Your task to perform on an android device: Turn off the flashlight Image 0: 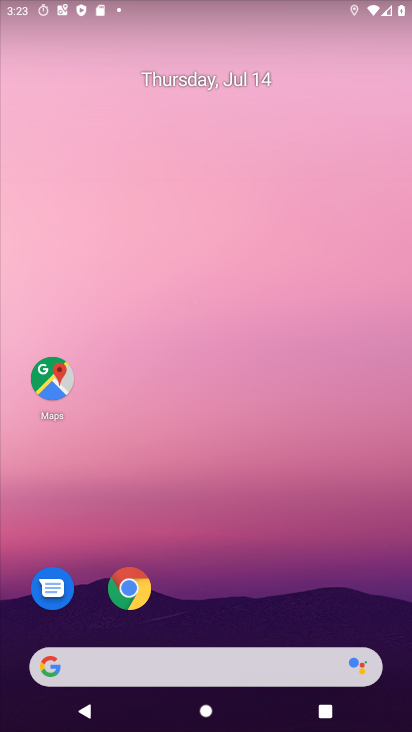
Step 0: drag from (212, 663) to (268, 184)
Your task to perform on an android device: Turn off the flashlight Image 1: 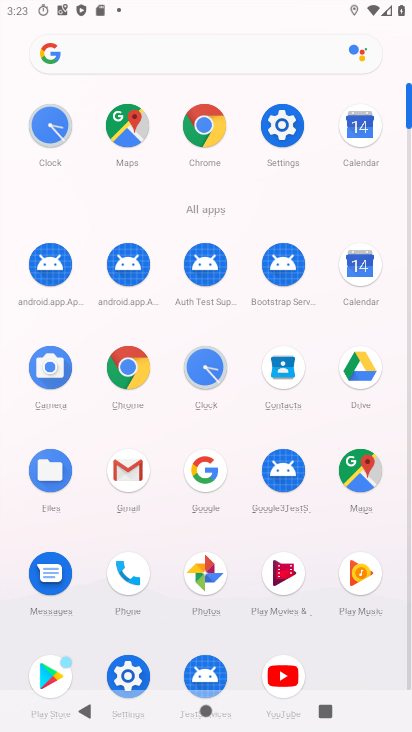
Step 1: click (281, 125)
Your task to perform on an android device: Turn off the flashlight Image 2: 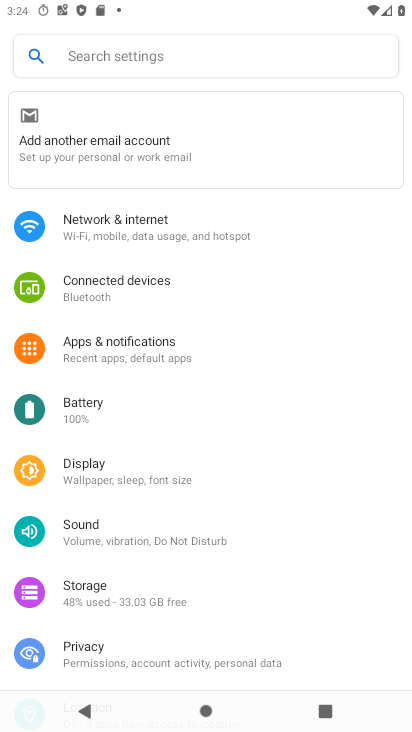
Step 2: drag from (132, 547) to (216, 443)
Your task to perform on an android device: Turn off the flashlight Image 3: 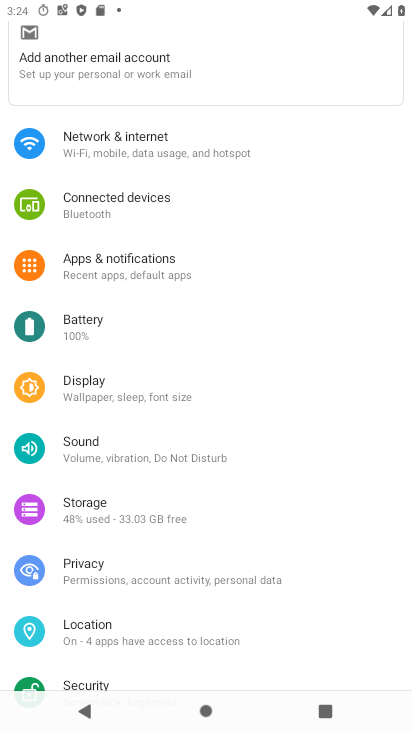
Step 3: click (156, 406)
Your task to perform on an android device: Turn off the flashlight Image 4: 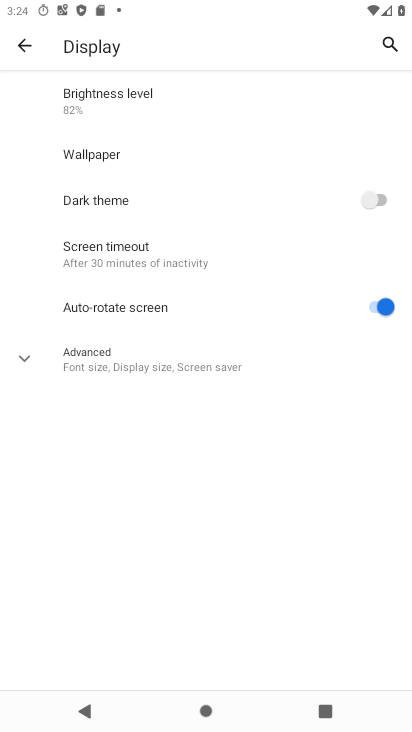
Step 4: click (143, 379)
Your task to perform on an android device: Turn off the flashlight Image 5: 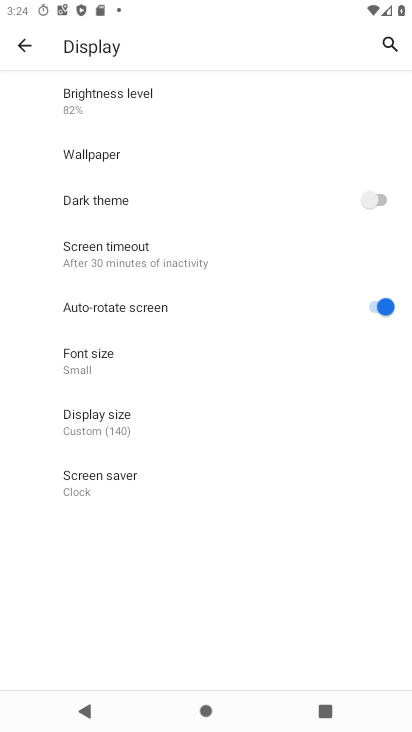
Step 5: click (96, 483)
Your task to perform on an android device: Turn off the flashlight Image 6: 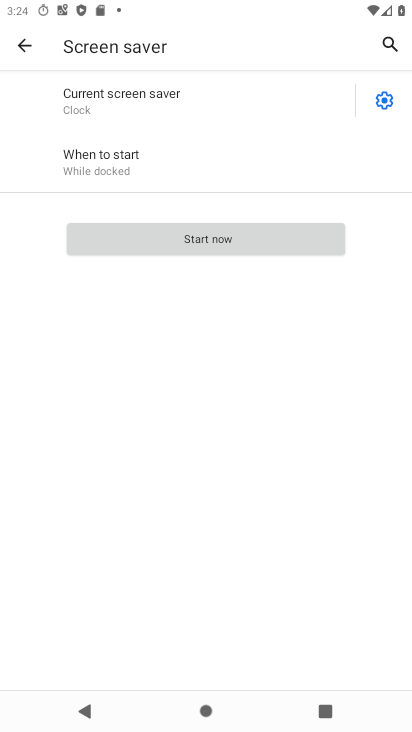
Step 6: press back button
Your task to perform on an android device: Turn off the flashlight Image 7: 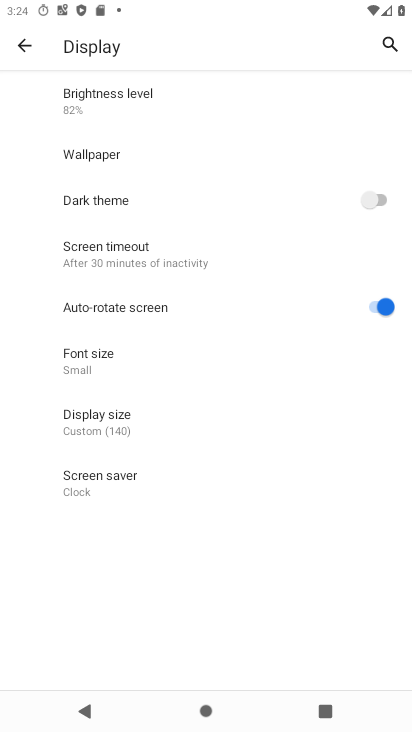
Step 7: click (102, 374)
Your task to perform on an android device: Turn off the flashlight Image 8: 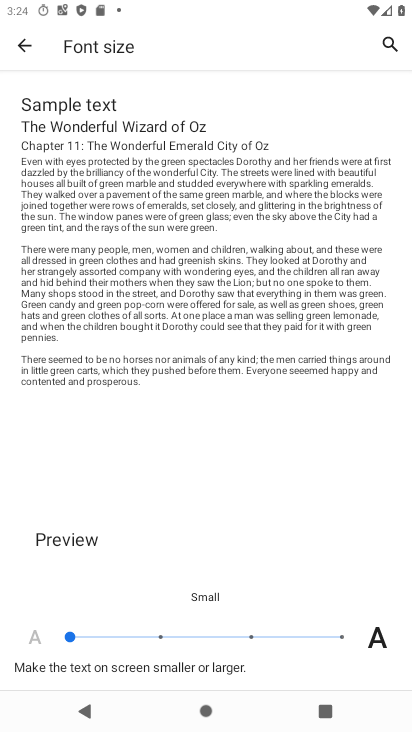
Step 8: press back button
Your task to perform on an android device: Turn off the flashlight Image 9: 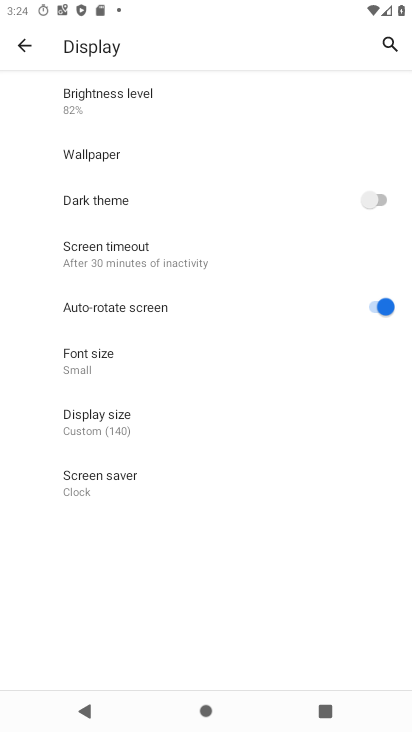
Step 9: click (109, 496)
Your task to perform on an android device: Turn off the flashlight Image 10: 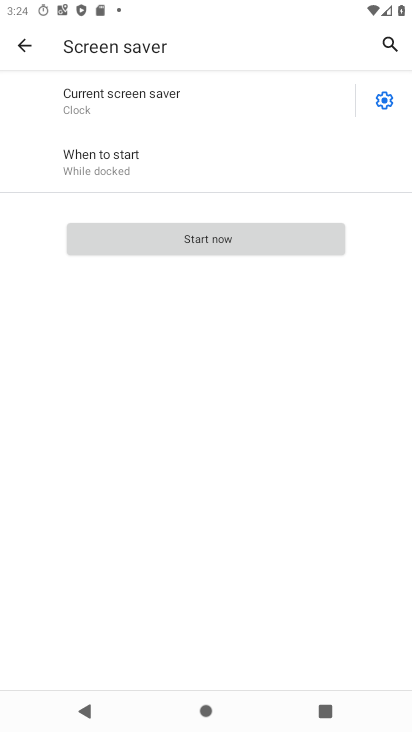
Step 10: task complete